Your task to perform on an android device: turn on priority inbox in the gmail app Image 0: 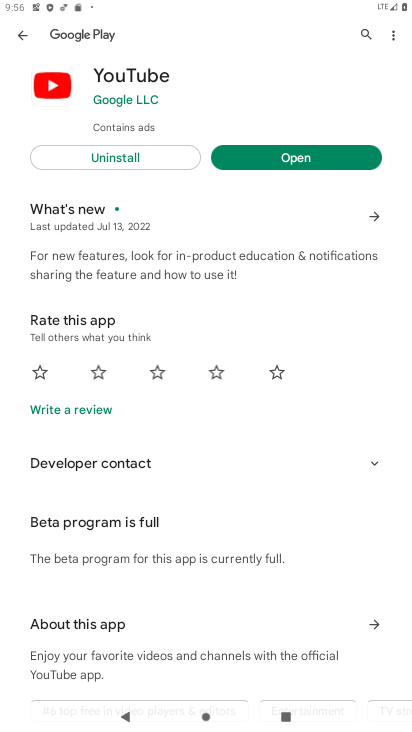
Step 0: press home button
Your task to perform on an android device: turn on priority inbox in the gmail app Image 1: 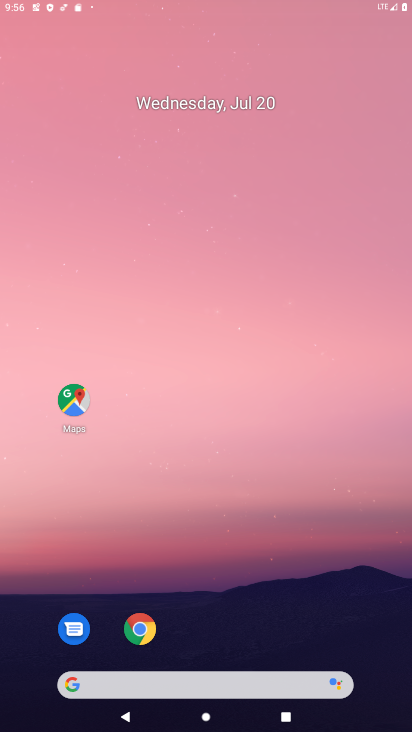
Step 1: drag from (280, 621) to (256, 21)
Your task to perform on an android device: turn on priority inbox in the gmail app Image 2: 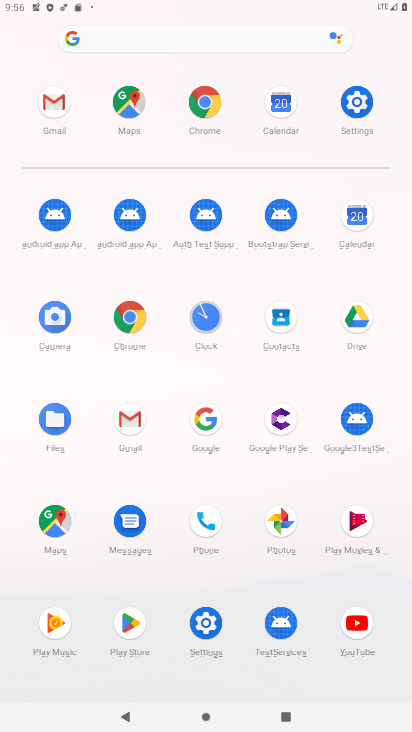
Step 2: click (59, 118)
Your task to perform on an android device: turn on priority inbox in the gmail app Image 3: 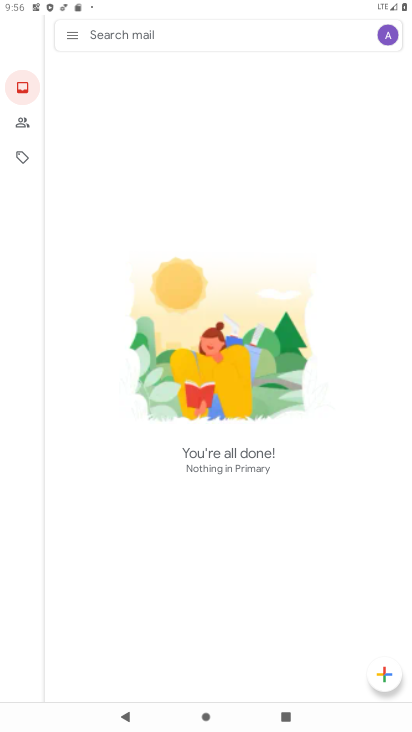
Step 3: click (62, 41)
Your task to perform on an android device: turn on priority inbox in the gmail app Image 4: 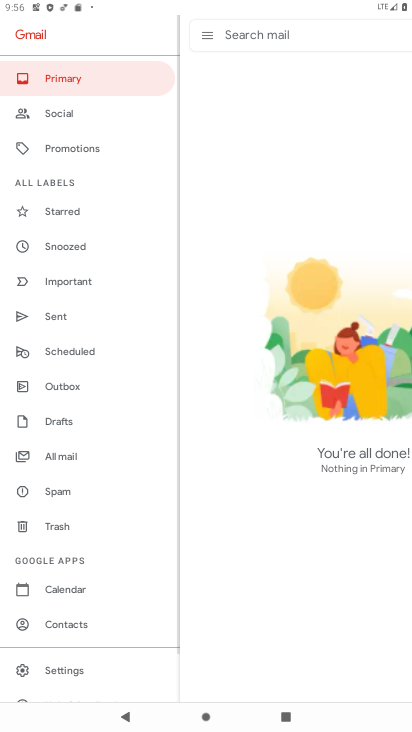
Step 4: click (54, 676)
Your task to perform on an android device: turn on priority inbox in the gmail app Image 5: 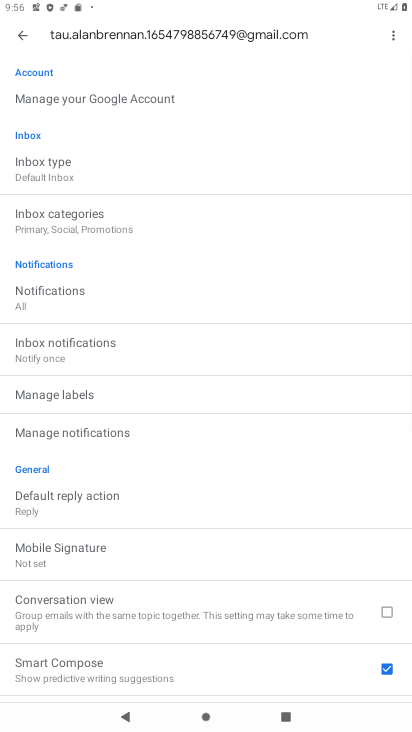
Step 5: click (69, 162)
Your task to perform on an android device: turn on priority inbox in the gmail app Image 6: 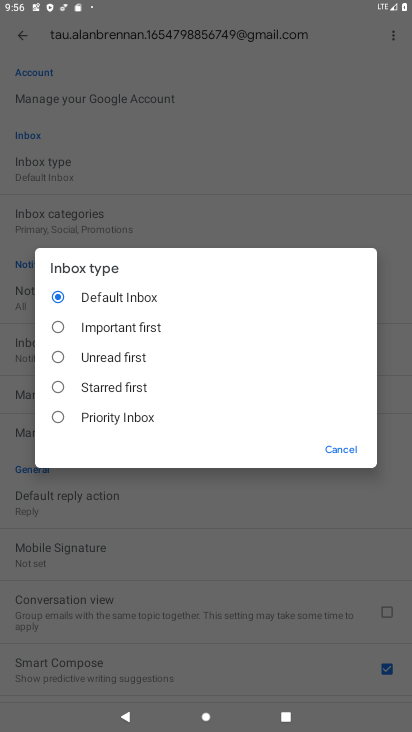
Step 6: click (109, 419)
Your task to perform on an android device: turn on priority inbox in the gmail app Image 7: 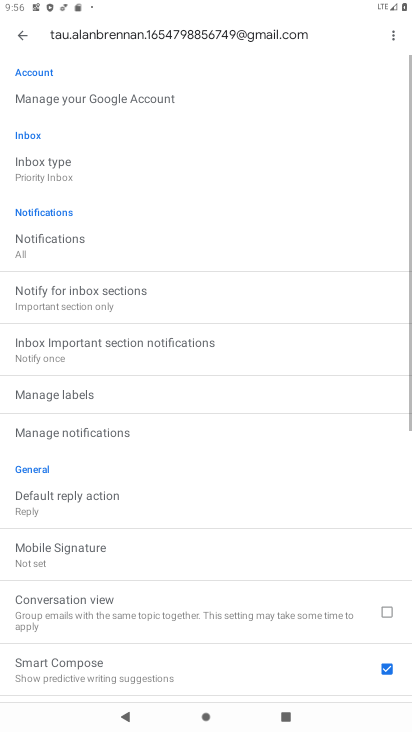
Step 7: task complete